Your task to perform on an android device: Go to sound settings Image 0: 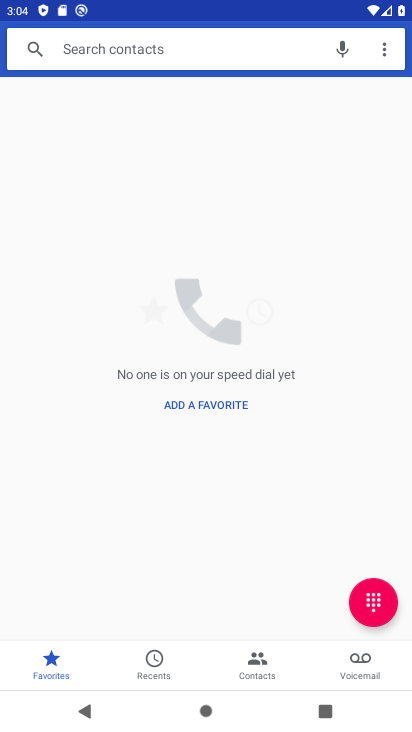
Step 0: press home button
Your task to perform on an android device: Go to sound settings Image 1: 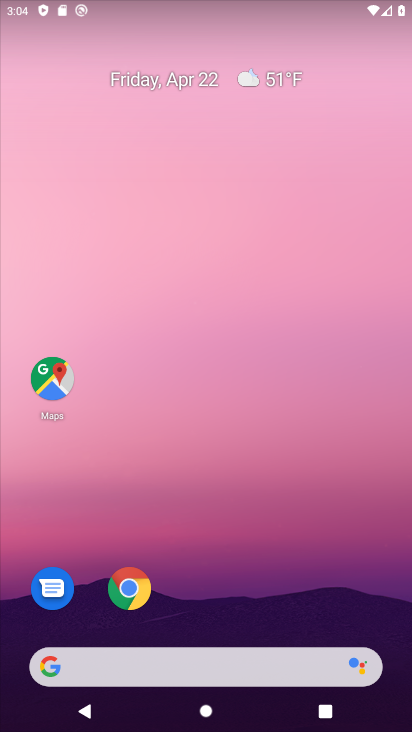
Step 1: drag from (324, 592) to (350, 97)
Your task to perform on an android device: Go to sound settings Image 2: 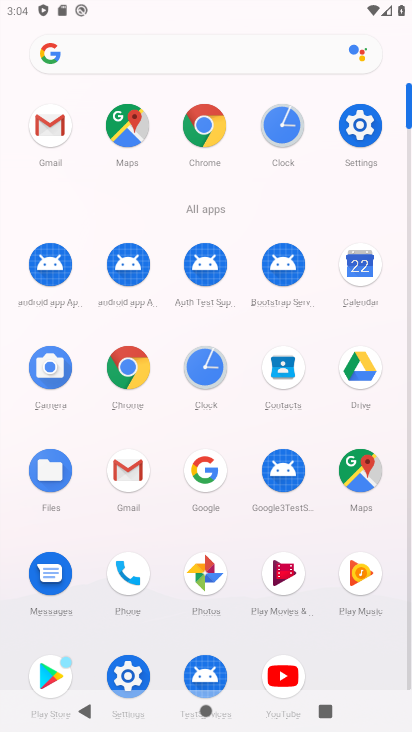
Step 2: click (371, 136)
Your task to perform on an android device: Go to sound settings Image 3: 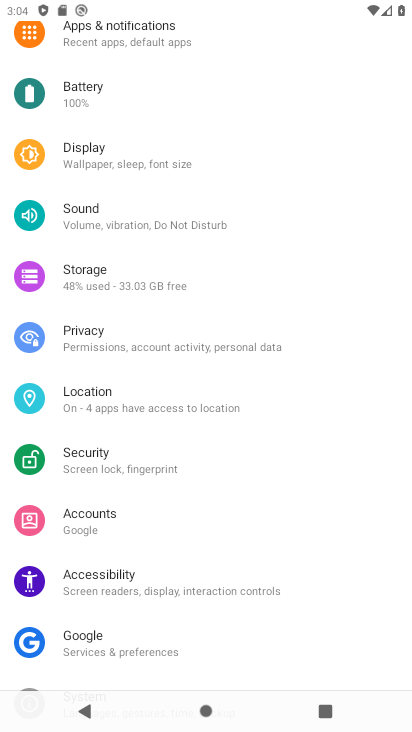
Step 3: drag from (352, 377) to (355, 490)
Your task to perform on an android device: Go to sound settings Image 4: 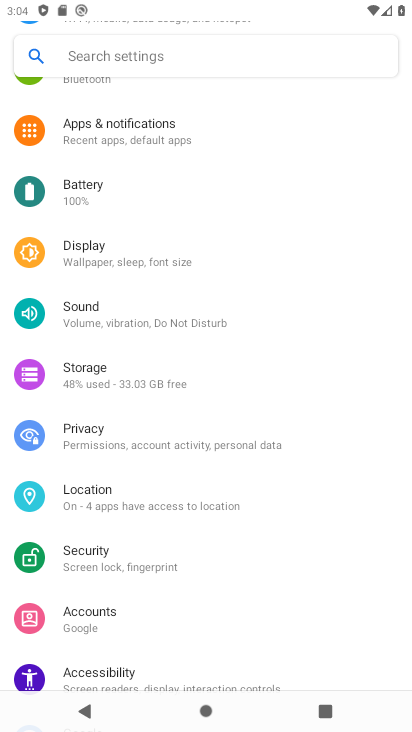
Step 4: drag from (348, 223) to (347, 466)
Your task to perform on an android device: Go to sound settings Image 5: 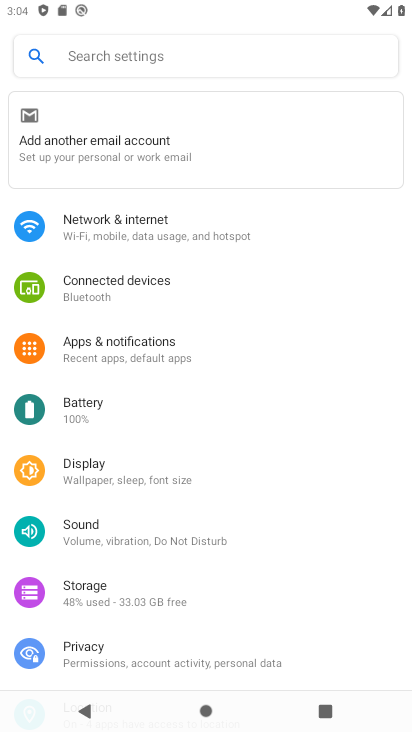
Step 5: drag from (344, 308) to (343, 525)
Your task to perform on an android device: Go to sound settings Image 6: 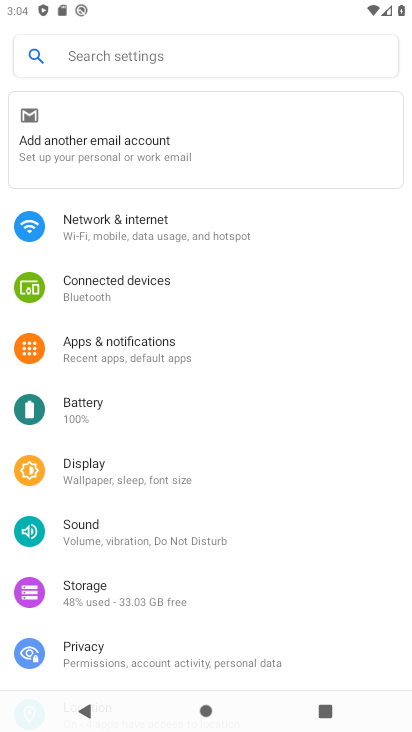
Step 6: drag from (342, 579) to (347, 379)
Your task to perform on an android device: Go to sound settings Image 7: 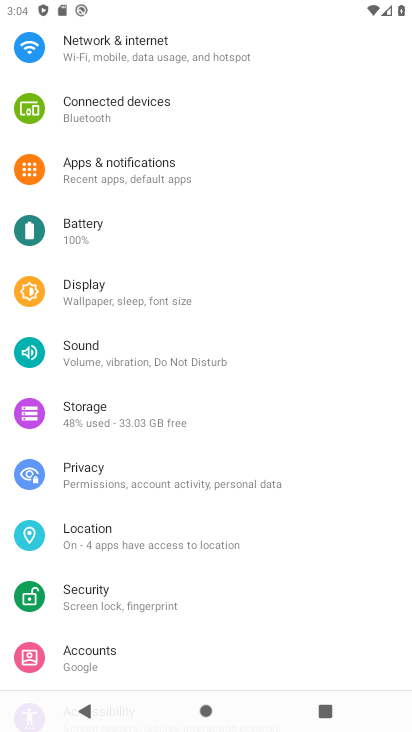
Step 7: drag from (331, 581) to (338, 408)
Your task to perform on an android device: Go to sound settings Image 8: 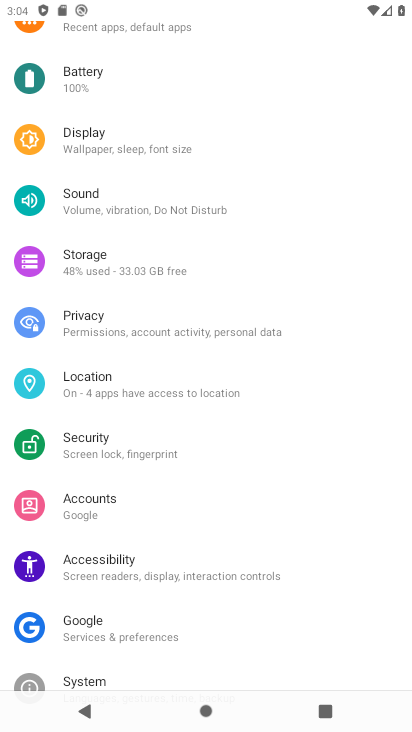
Step 8: drag from (332, 600) to (355, 346)
Your task to perform on an android device: Go to sound settings Image 9: 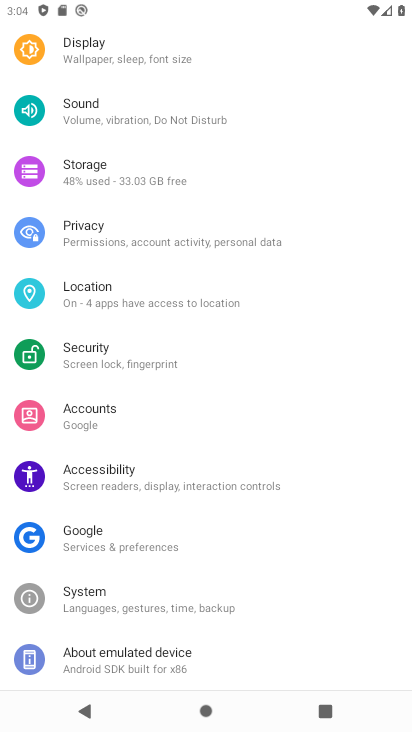
Step 9: drag from (355, 191) to (328, 340)
Your task to perform on an android device: Go to sound settings Image 10: 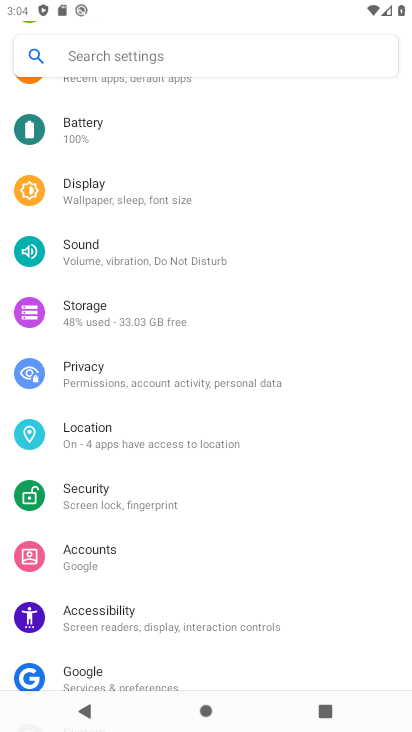
Step 10: click (189, 257)
Your task to perform on an android device: Go to sound settings Image 11: 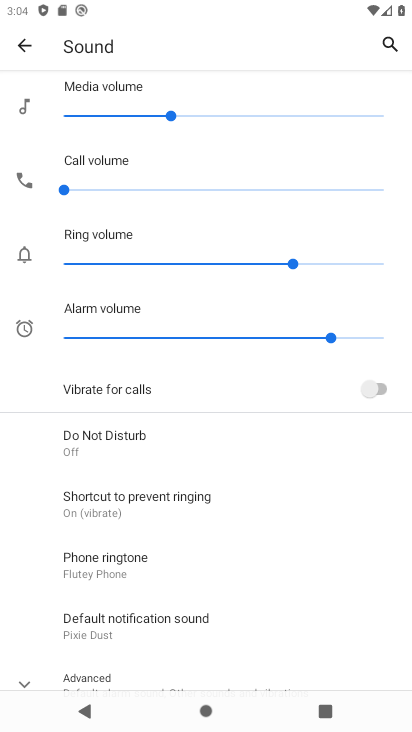
Step 11: task complete